Your task to perform on an android device: Search for a new blush on Sephora Image 0: 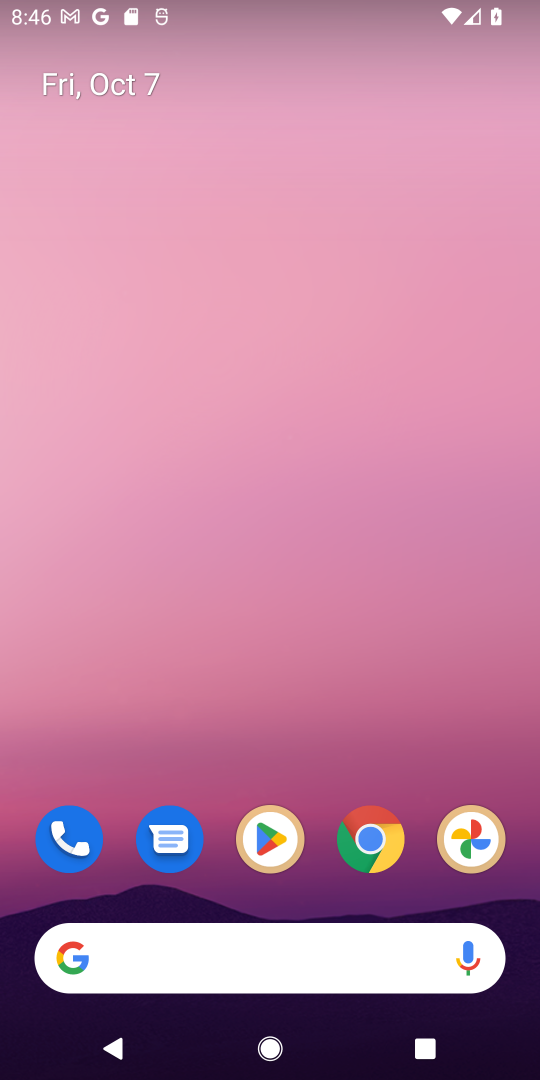
Step 0: click (397, 838)
Your task to perform on an android device: Search for a new blush on Sephora Image 1: 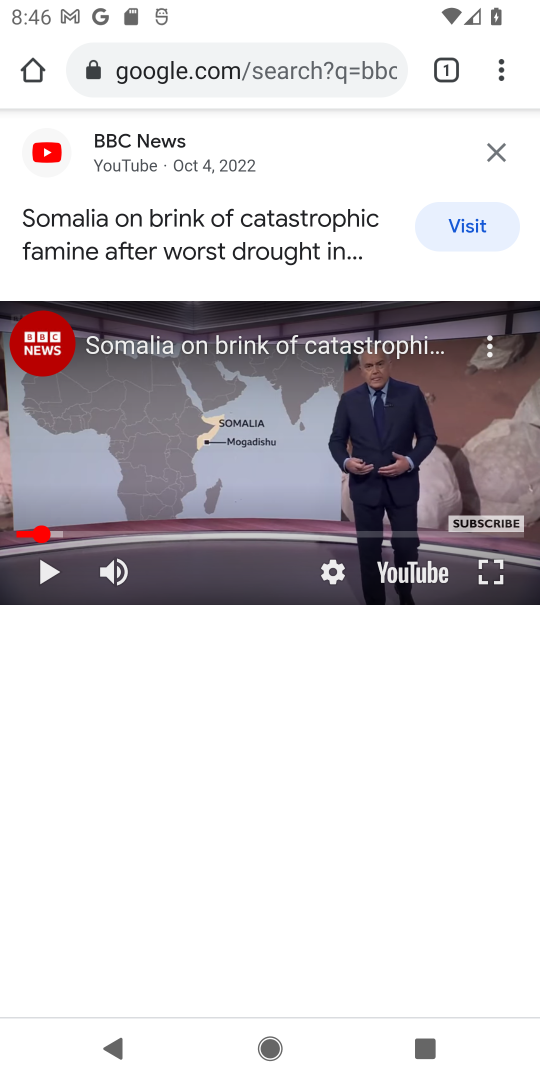
Step 1: click (258, 60)
Your task to perform on an android device: Search for a new blush on Sephora Image 2: 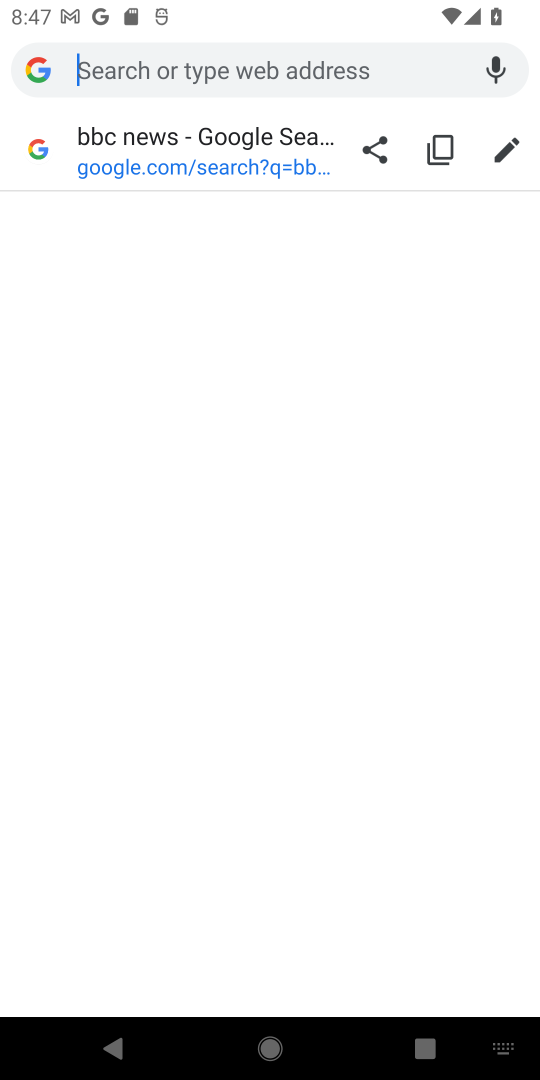
Step 2: type "sephora"
Your task to perform on an android device: Search for a new blush on Sephora Image 3: 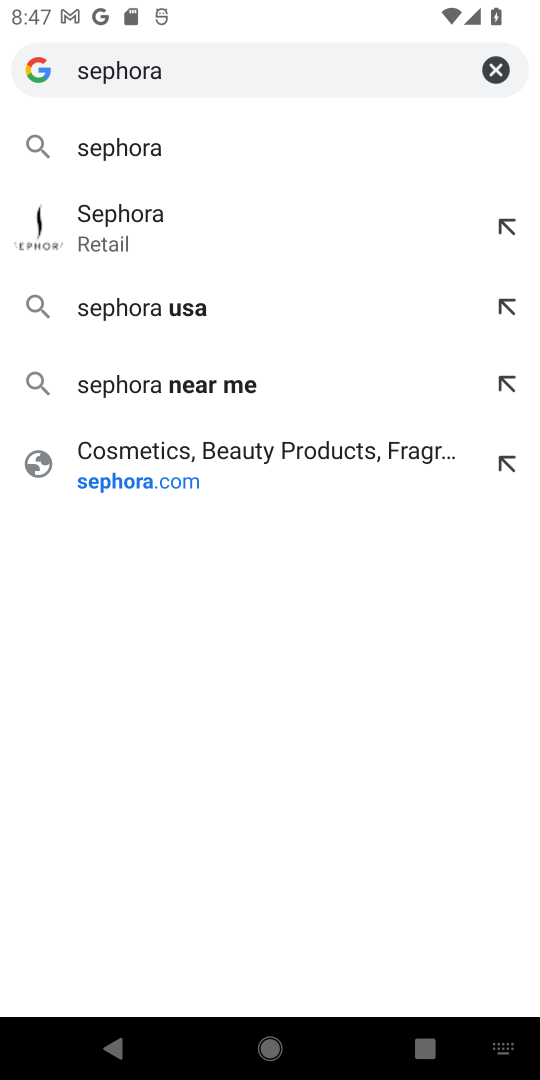
Step 3: click (110, 439)
Your task to perform on an android device: Search for a new blush on Sephora Image 4: 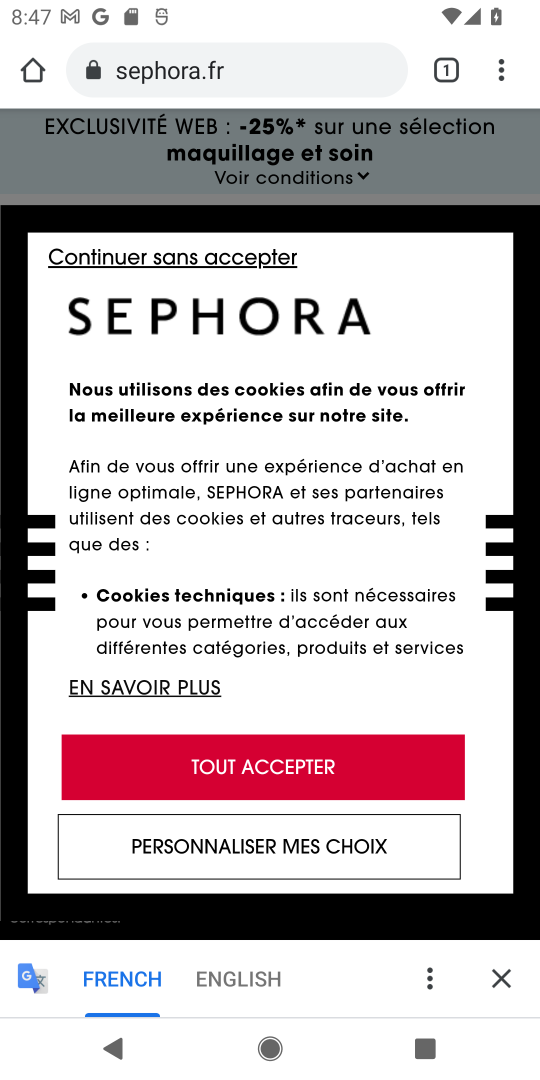
Step 4: click (233, 779)
Your task to perform on an android device: Search for a new blush on Sephora Image 5: 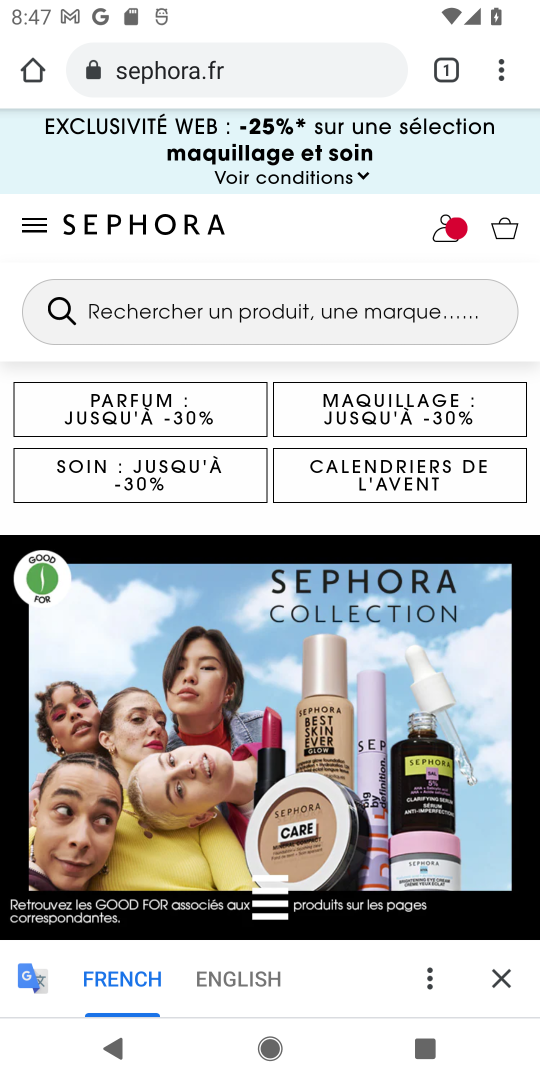
Step 5: click (117, 313)
Your task to perform on an android device: Search for a new blush on Sephora Image 6: 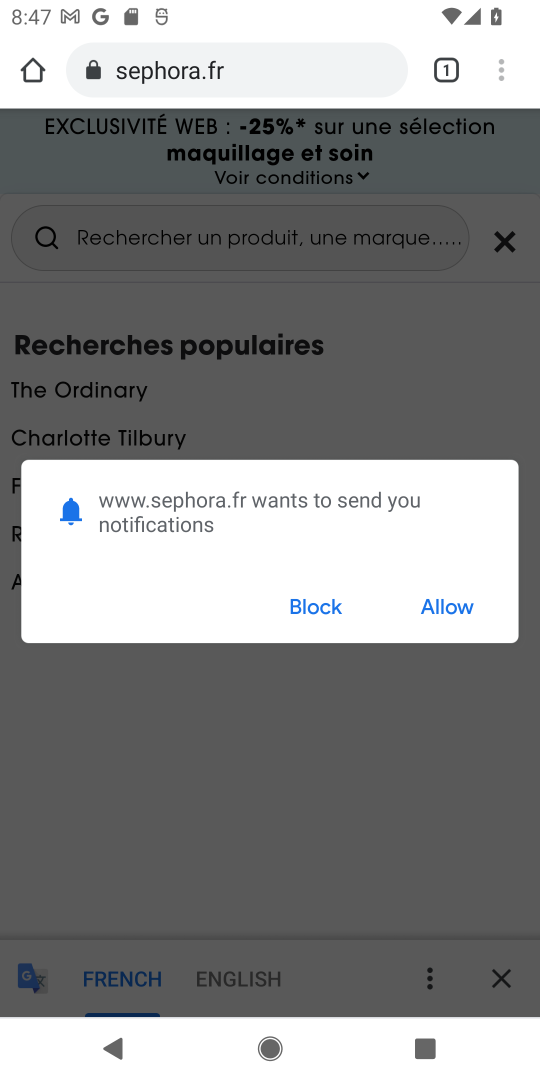
Step 6: click (451, 610)
Your task to perform on an android device: Search for a new blush on Sephora Image 7: 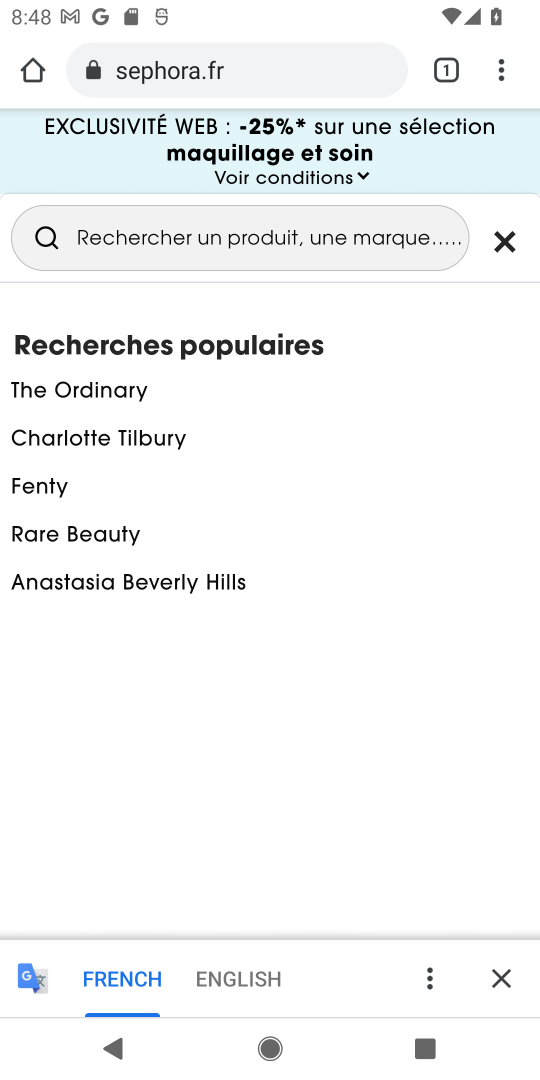
Step 7: click (329, 230)
Your task to perform on an android device: Search for a new blush on Sephora Image 8: 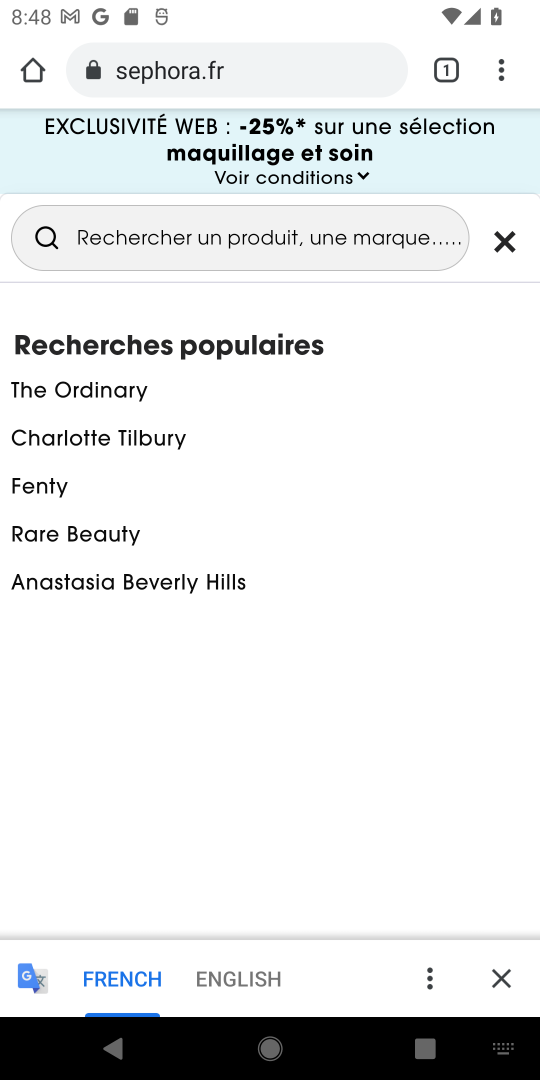
Step 8: type "new blush"
Your task to perform on an android device: Search for a new blush on Sephora Image 9: 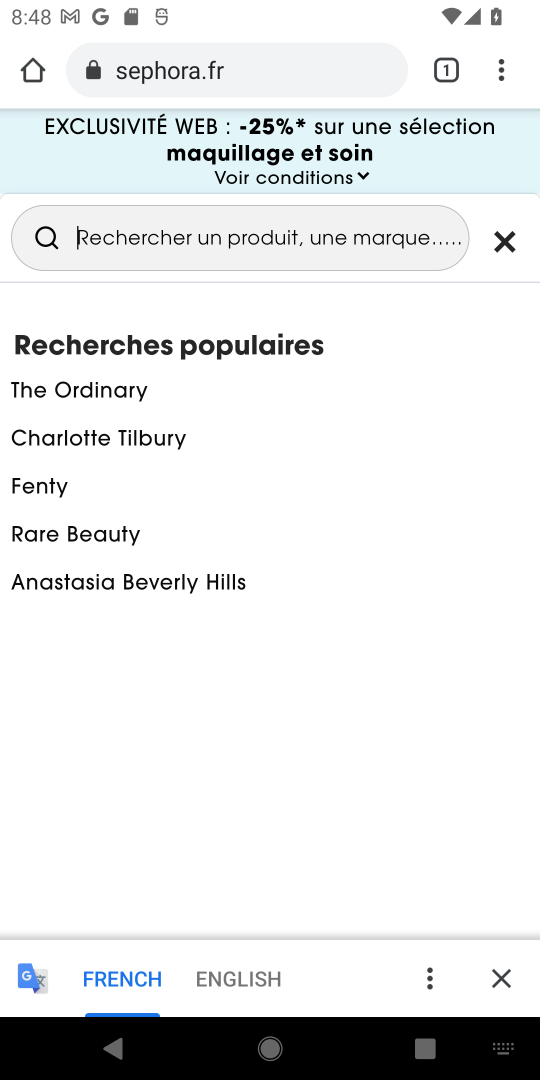
Step 9: type ""
Your task to perform on an android device: Search for a new blush on Sephora Image 10: 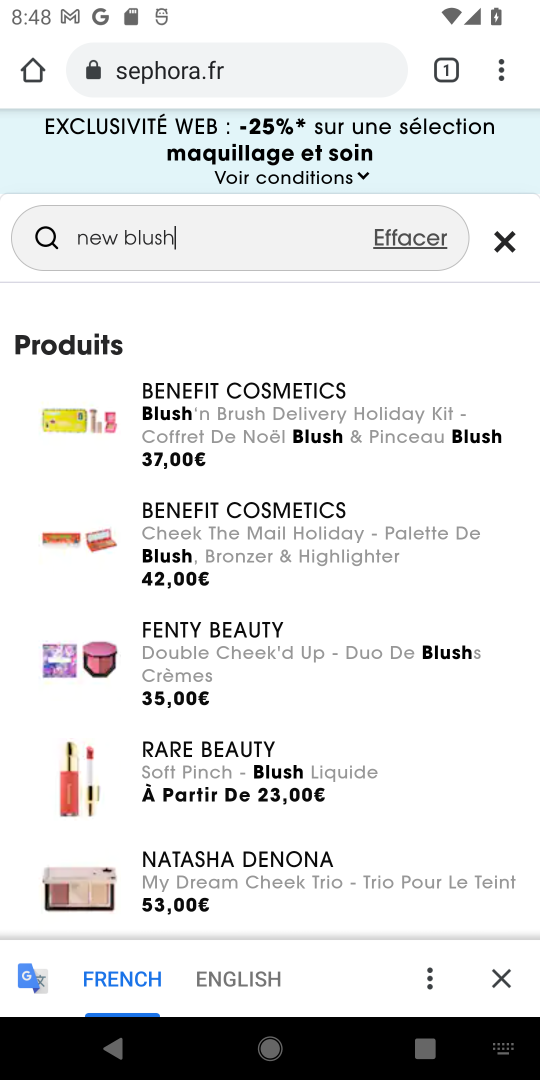
Step 10: drag from (297, 819) to (240, 330)
Your task to perform on an android device: Search for a new blush on Sephora Image 11: 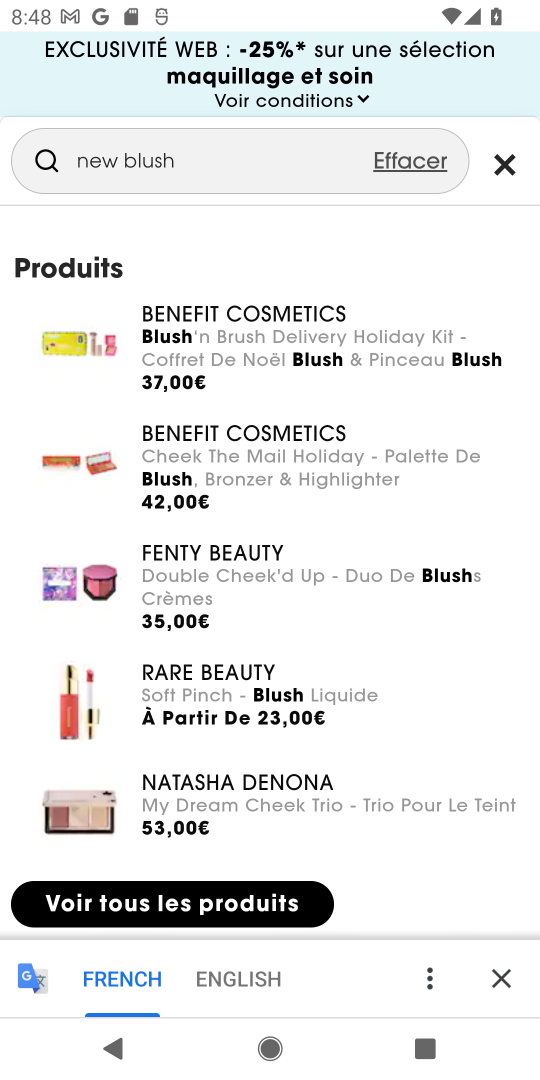
Step 11: drag from (241, 700) to (265, 414)
Your task to perform on an android device: Search for a new blush on Sephora Image 12: 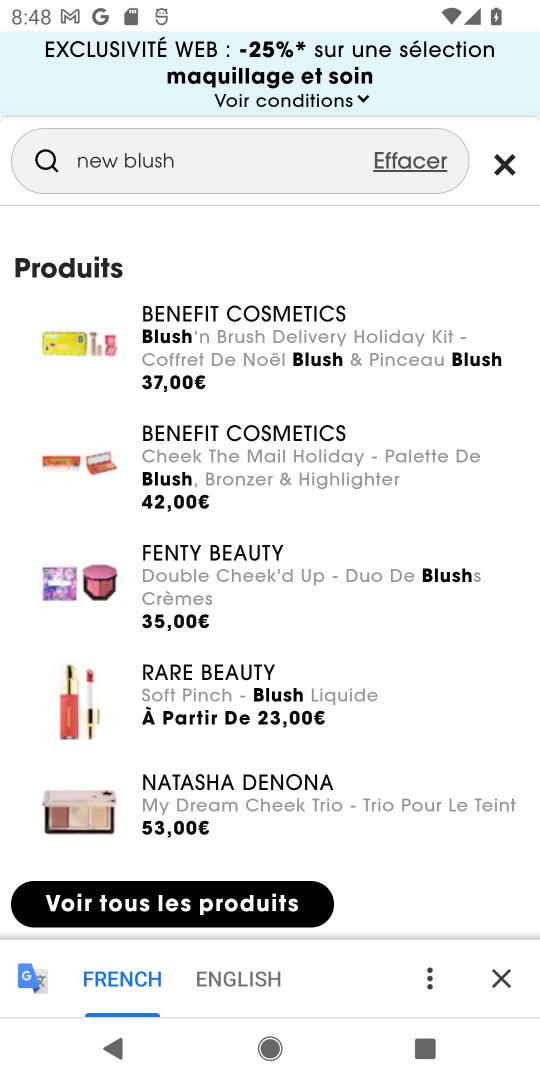
Step 12: drag from (304, 675) to (336, 432)
Your task to perform on an android device: Search for a new blush on Sephora Image 13: 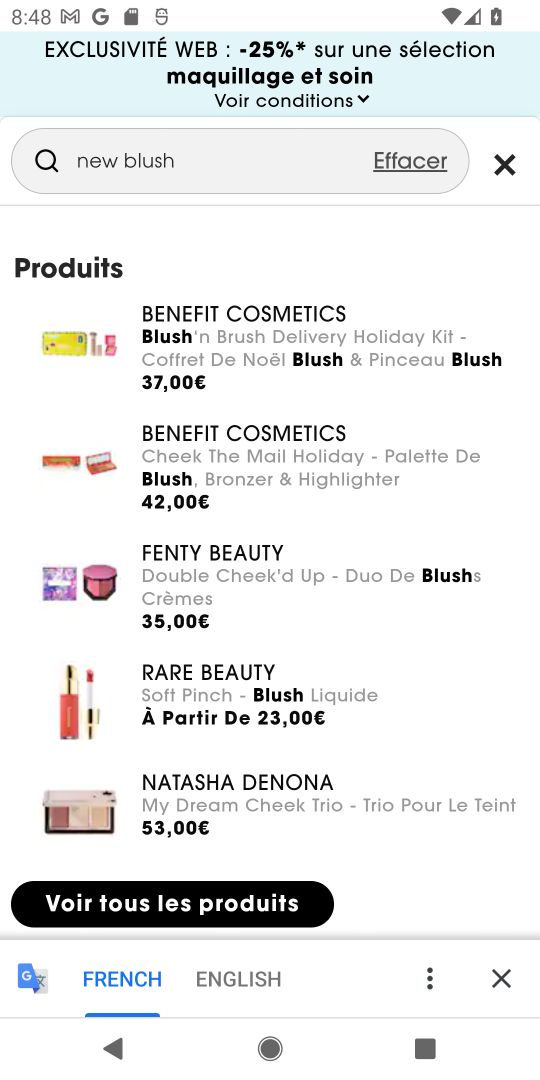
Step 13: drag from (308, 718) to (275, 282)
Your task to perform on an android device: Search for a new blush on Sephora Image 14: 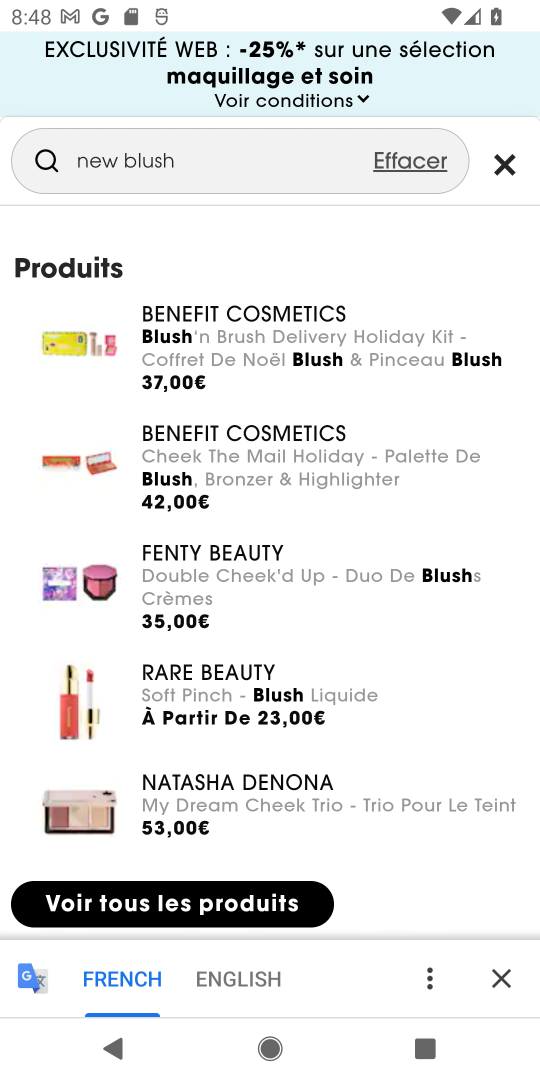
Step 14: drag from (219, 765) to (220, 404)
Your task to perform on an android device: Search for a new blush on Sephora Image 15: 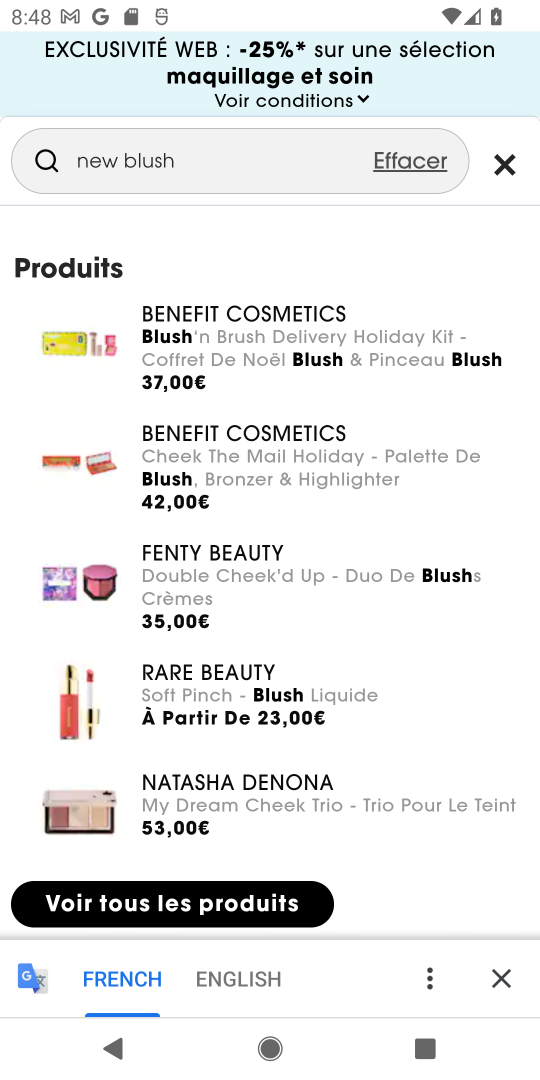
Step 15: drag from (237, 722) to (228, 381)
Your task to perform on an android device: Search for a new blush on Sephora Image 16: 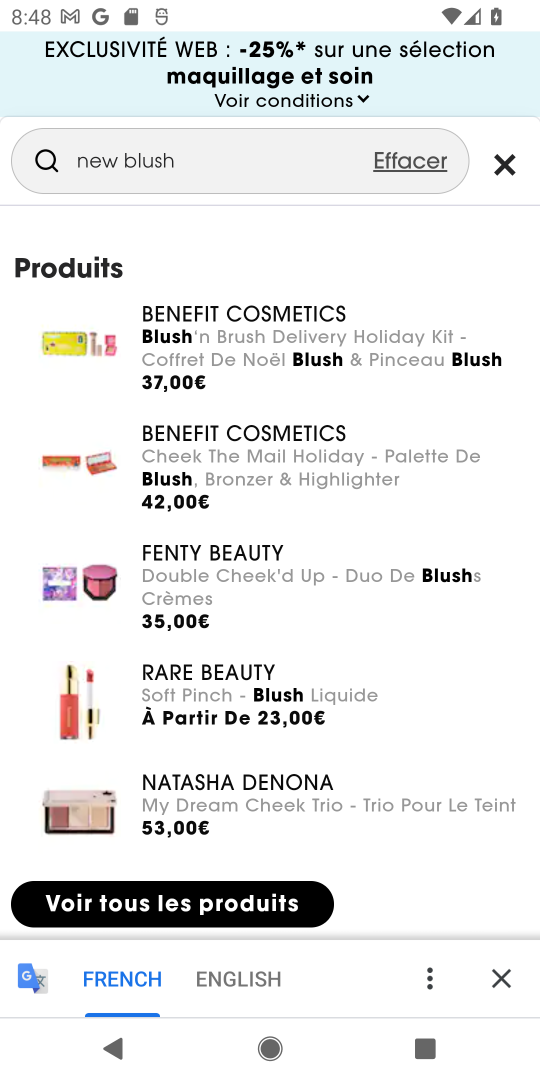
Step 16: drag from (220, 494) to (208, 264)
Your task to perform on an android device: Search for a new blush on Sephora Image 17: 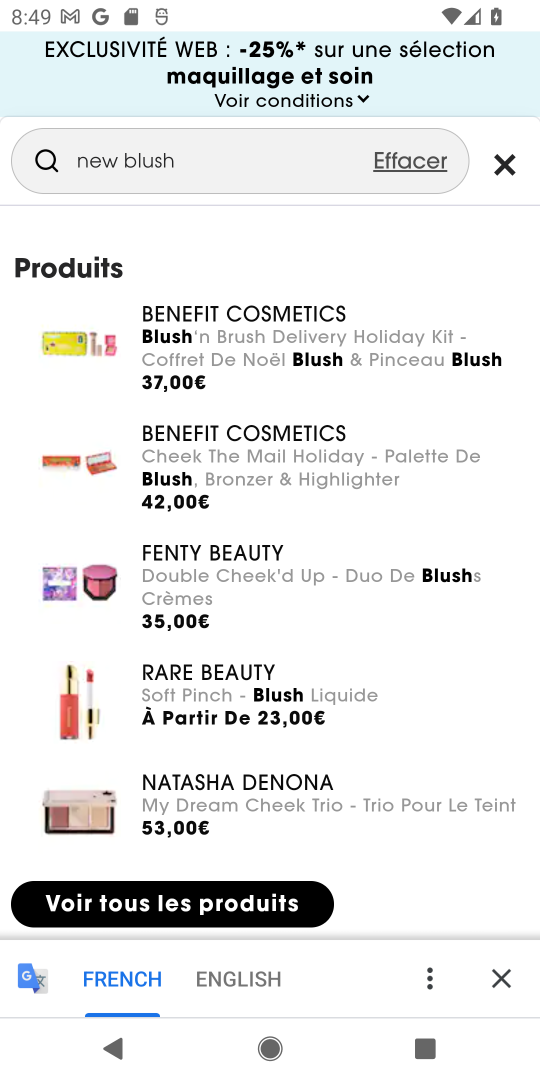
Step 17: drag from (228, 582) to (250, 339)
Your task to perform on an android device: Search for a new blush on Sephora Image 18: 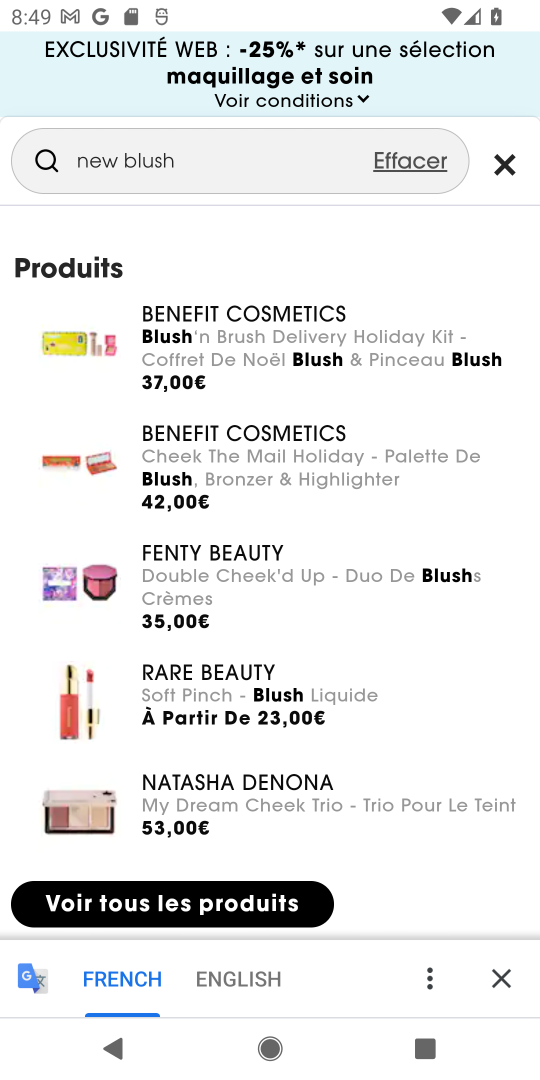
Step 18: drag from (395, 739) to (416, 389)
Your task to perform on an android device: Search for a new blush on Sephora Image 19: 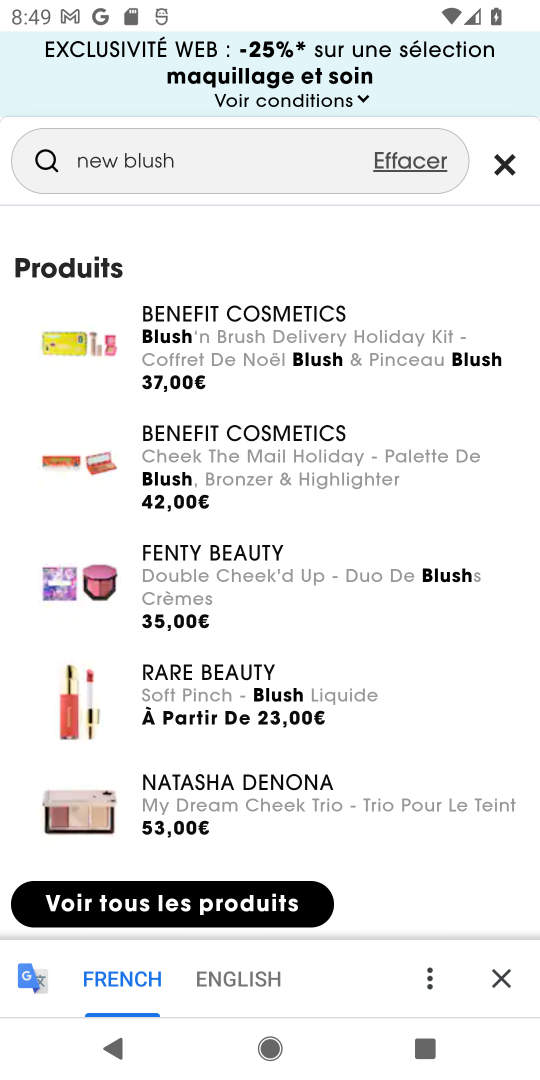
Step 19: click (173, 355)
Your task to perform on an android device: Search for a new blush on Sephora Image 20: 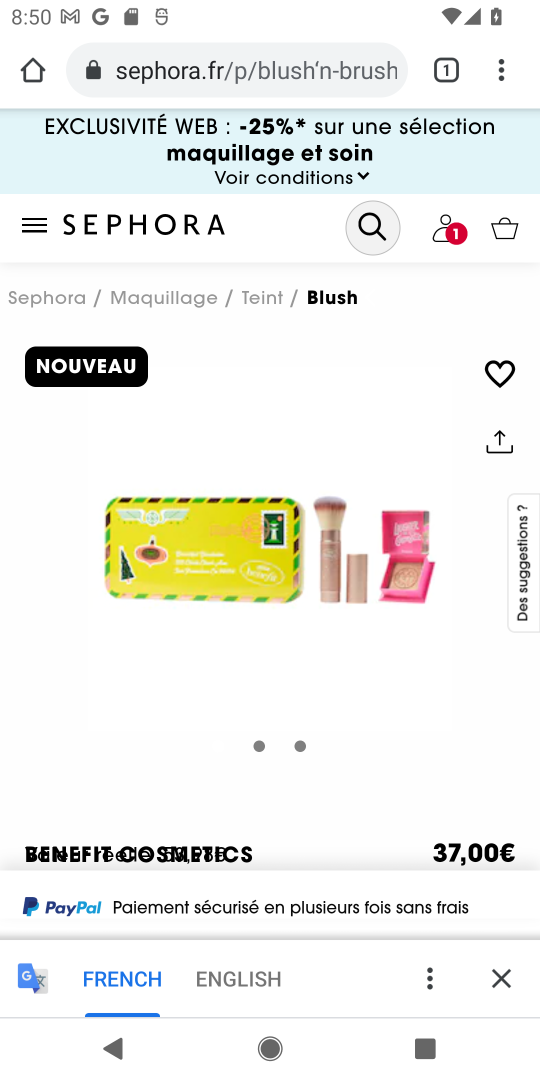
Step 20: task complete